Your task to perform on an android device: make emails show in primary in the gmail app Image 0: 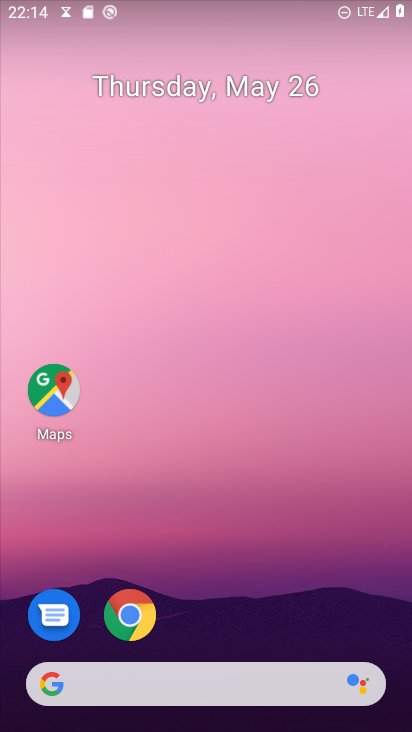
Step 0: drag from (204, 613) to (245, 321)
Your task to perform on an android device: make emails show in primary in the gmail app Image 1: 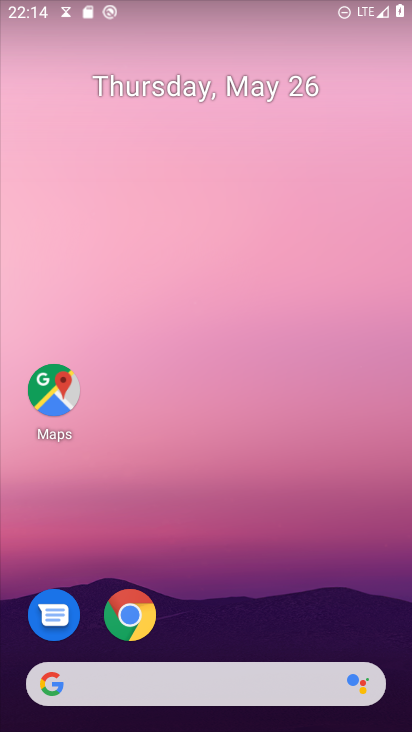
Step 1: drag from (239, 527) to (242, 331)
Your task to perform on an android device: make emails show in primary in the gmail app Image 2: 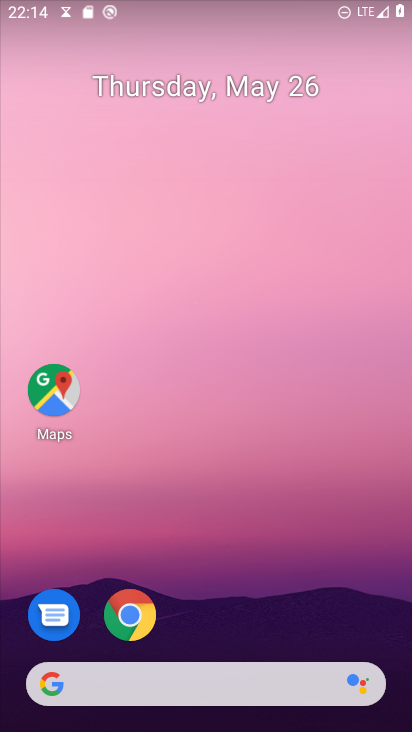
Step 2: drag from (314, 432) to (314, 279)
Your task to perform on an android device: make emails show in primary in the gmail app Image 3: 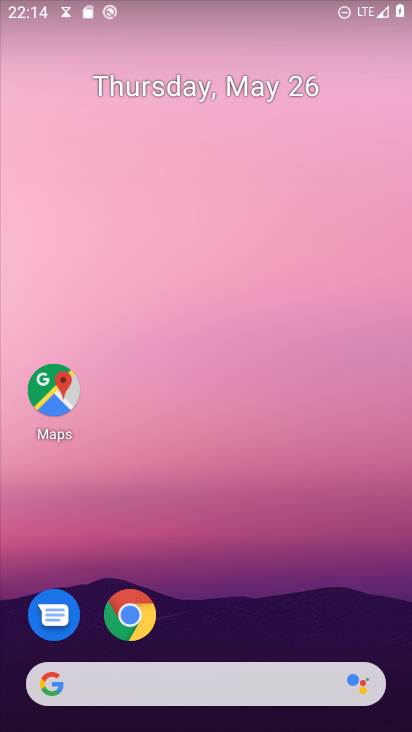
Step 3: drag from (206, 463) to (214, 390)
Your task to perform on an android device: make emails show in primary in the gmail app Image 4: 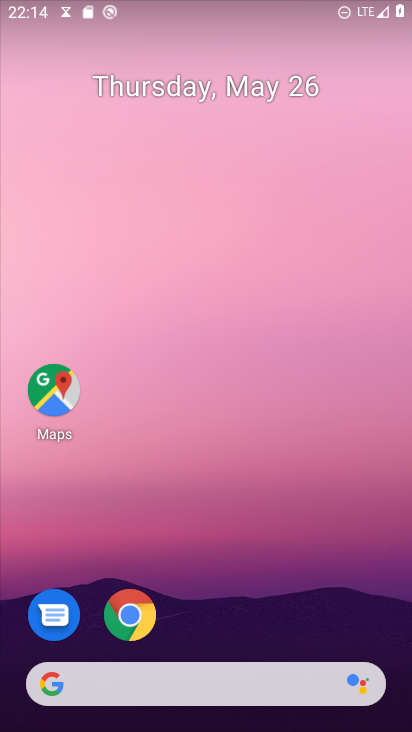
Step 4: drag from (230, 629) to (230, 504)
Your task to perform on an android device: make emails show in primary in the gmail app Image 5: 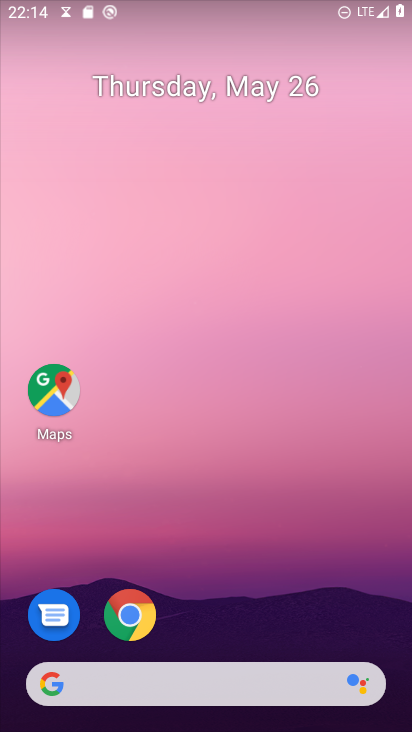
Step 5: drag from (219, 607) to (216, 386)
Your task to perform on an android device: make emails show in primary in the gmail app Image 6: 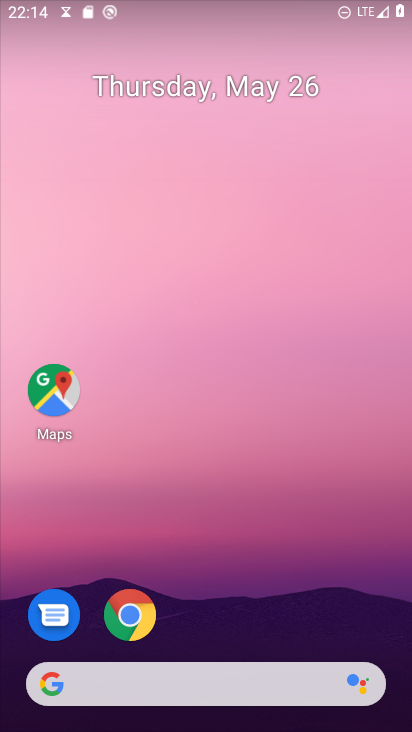
Step 6: click (224, 563)
Your task to perform on an android device: make emails show in primary in the gmail app Image 7: 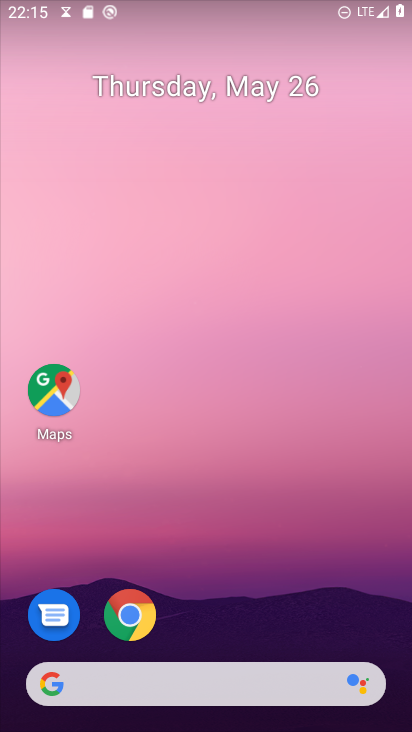
Step 7: drag from (299, 449) to (304, 9)
Your task to perform on an android device: make emails show in primary in the gmail app Image 8: 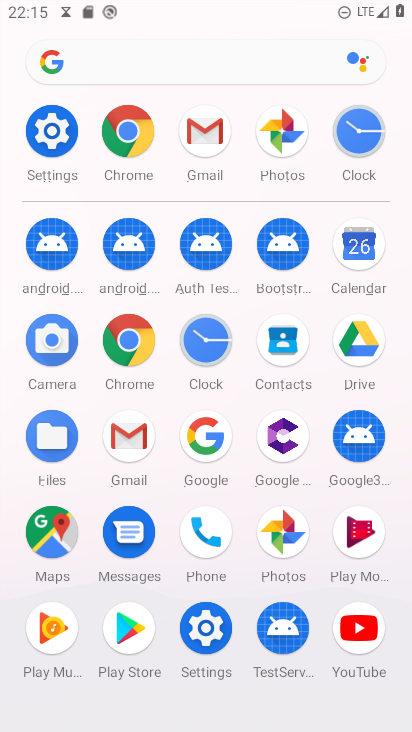
Step 8: click (136, 432)
Your task to perform on an android device: make emails show in primary in the gmail app Image 9: 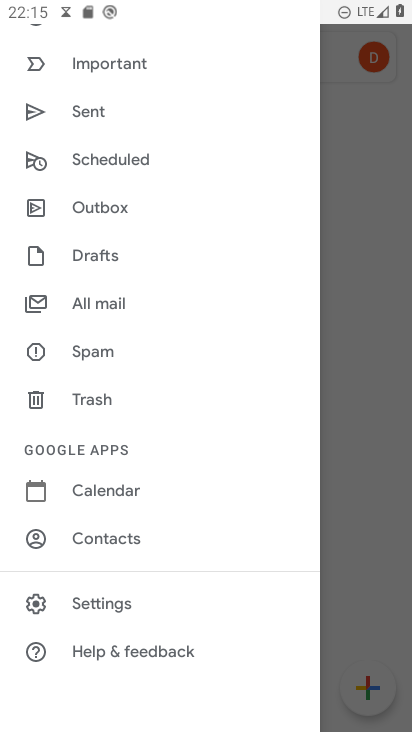
Step 9: click (132, 600)
Your task to perform on an android device: make emails show in primary in the gmail app Image 10: 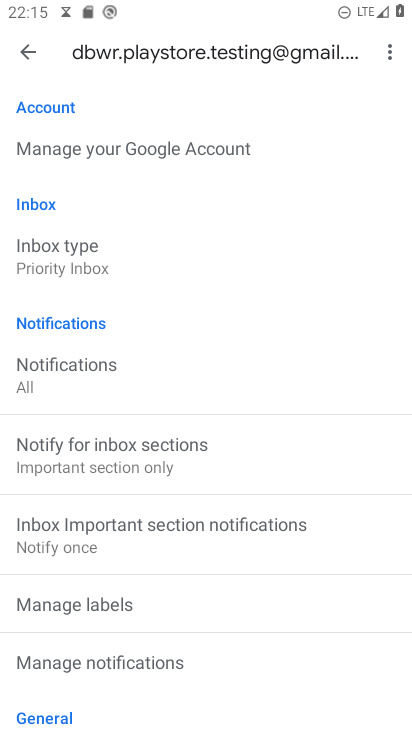
Step 10: task complete